Your task to perform on an android device: add a contact in the contacts app Image 0: 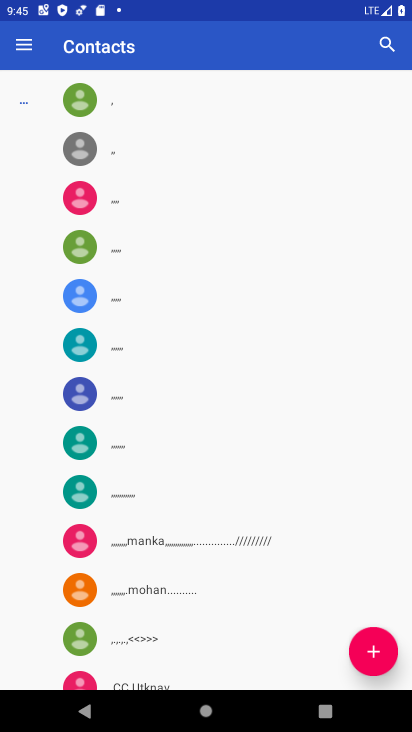
Step 0: press home button
Your task to perform on an android device: add a contact in the contacts app Image 1: 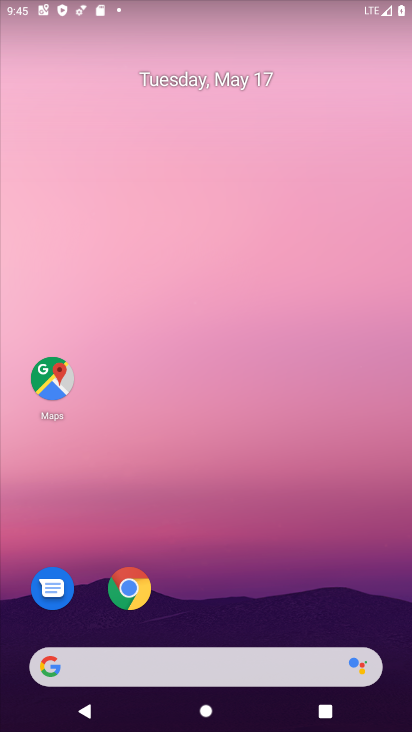
Step 1: drag from (220, 640) to (279, 11)
Your task to perform on an android device: add a contact in the contacts app Image 2: 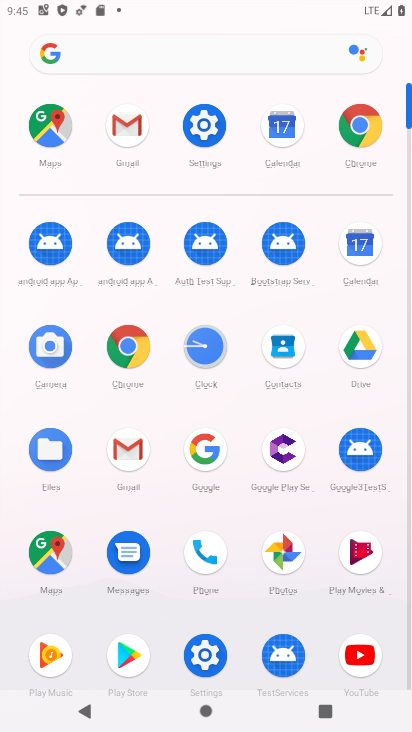
Step 2: click (211, 557)
Your task to perform on an android device: add a contact in the contacts app Image 3: 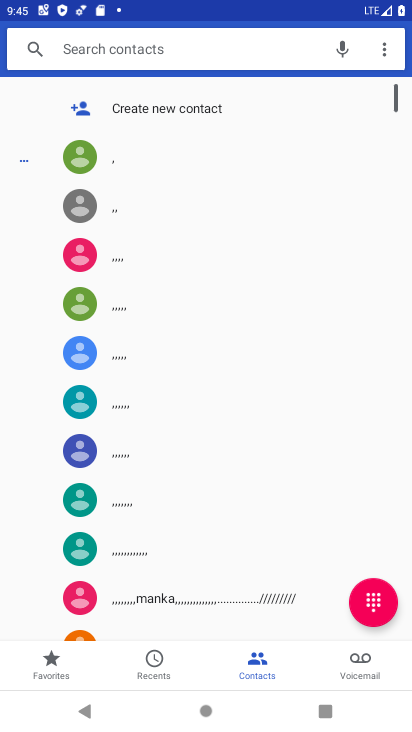
Step 3: click (120, 102)
Your task to perform on an android device: add a contact in the contacts app Image 4: 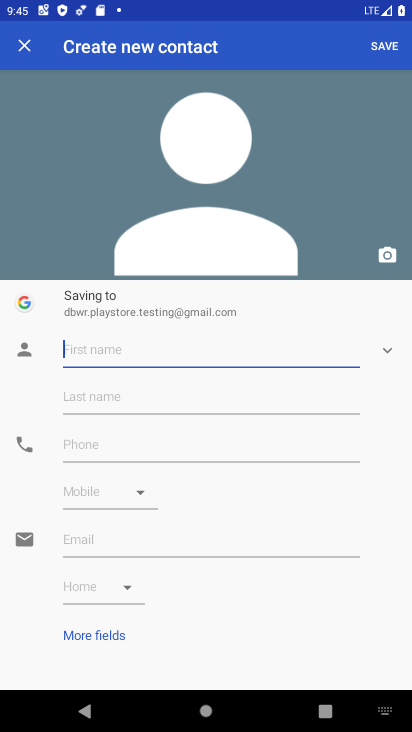
Step 4: type "juki"
Your task to perform on an android device: add a contact in the contacts app Image 5: 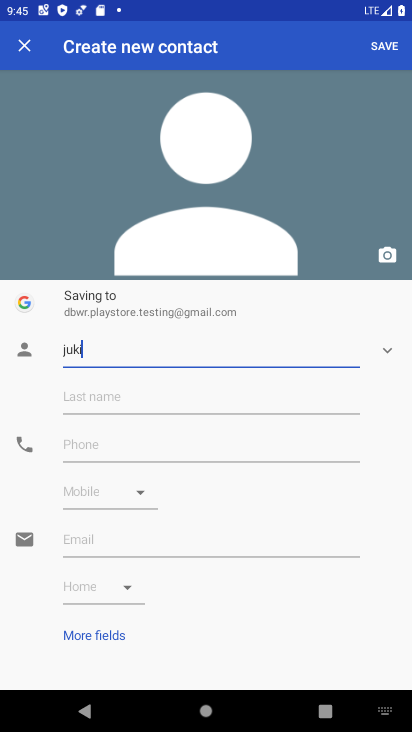
Step 5: click (211, 448)
Your task to perform on an android device: add a contact in the contacts app Image 6: 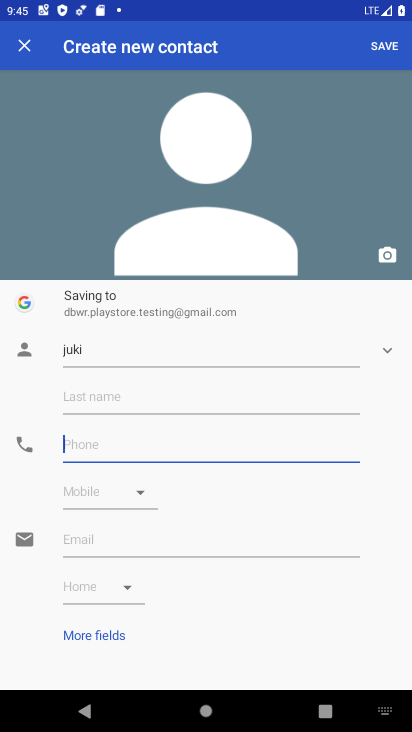
Step 6: type "68866"
Your task to perform on an android device: add a contact in the contacts app Image 7: 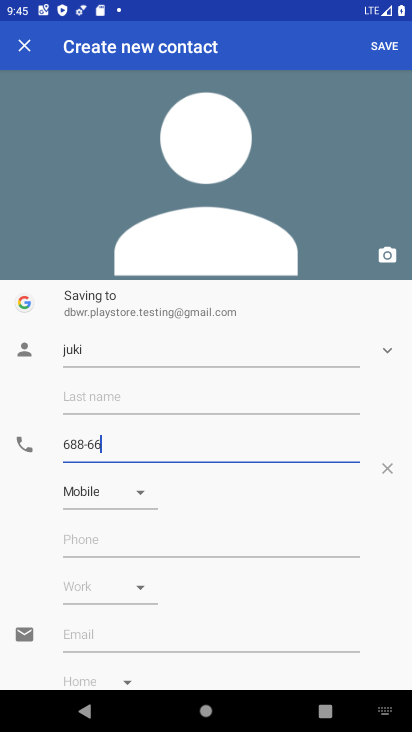
Step 7: click (372, 42)
Your task to perform on an android device: add a contact in the contacts app Image 8: 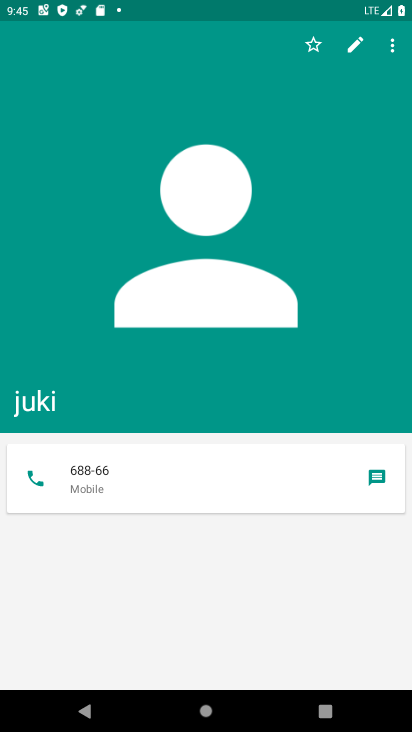
Step 8: task complete